Your task to perform on an android device: change notification settings in the gmail app Image 0: 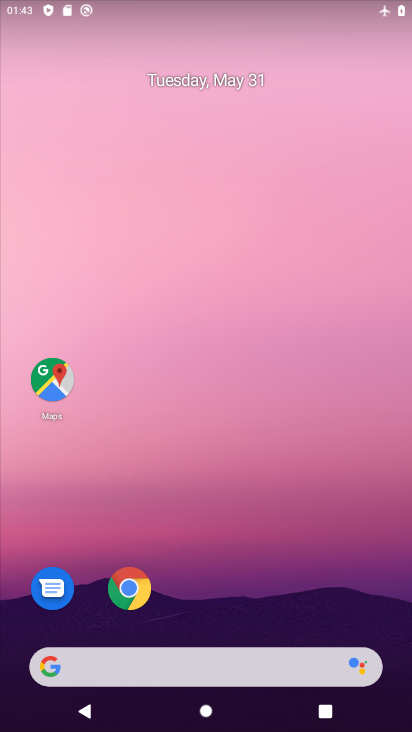
Step 0: drag from (276, 603) to (314, 213)
Your task to perform on an android device: change notification settings in the gmail app Image 1: 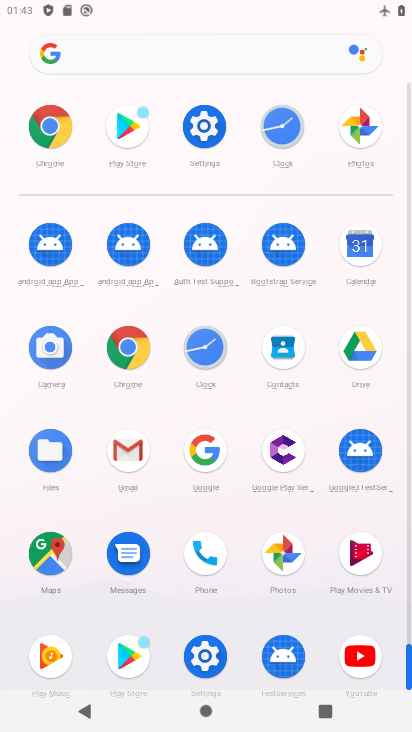
Step 1: click (130, 450)
Your task to perform on an android device: change notification settings in the gmail app Image 2: 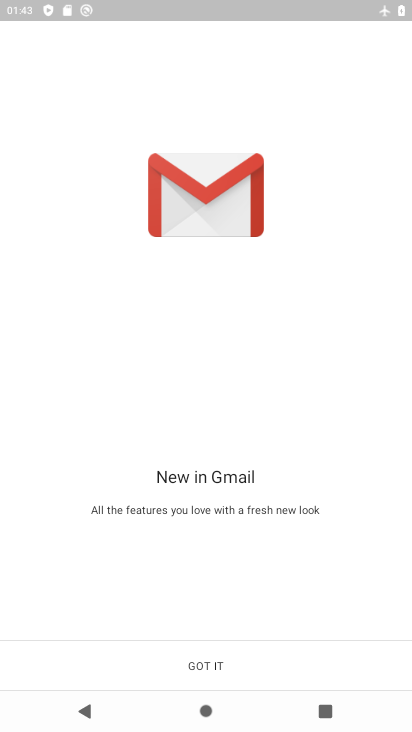
Step 2: click (228, 663)
Your task to perform on an android device: change notification settings in the gmail app Image 3: 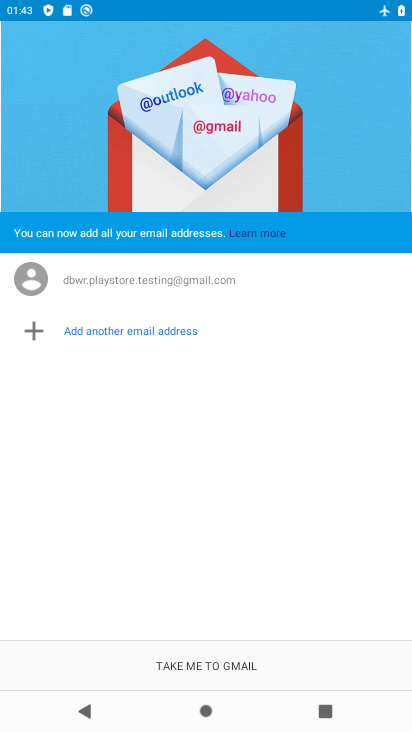
Step 3: click (235, 657)
Your task to perform on an android device: change notification settings in the gmail app Image 4: 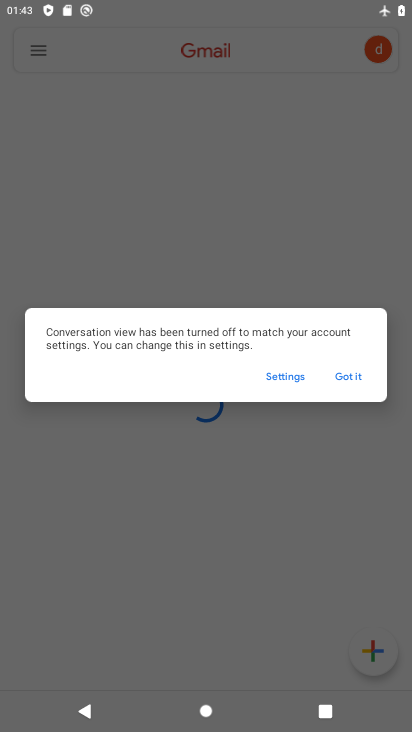
Step 4: click (351, 380)
Your task to perform on an android device: change notification settings in the gmail app Image 5: 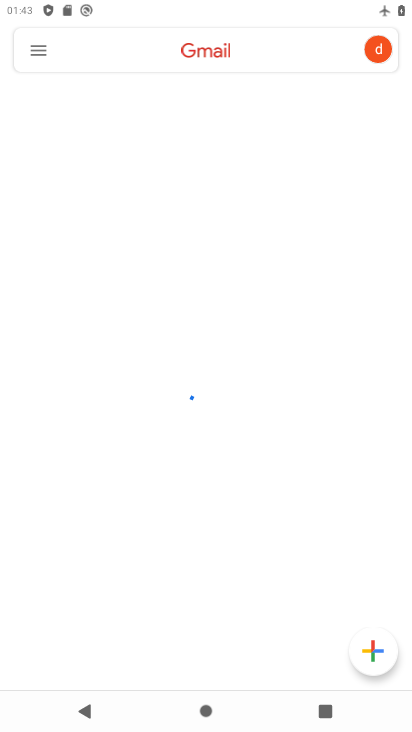
Step 5: click (33, 47)
Your task to perform on an android device: change notification settings in the gmail app Image 6: 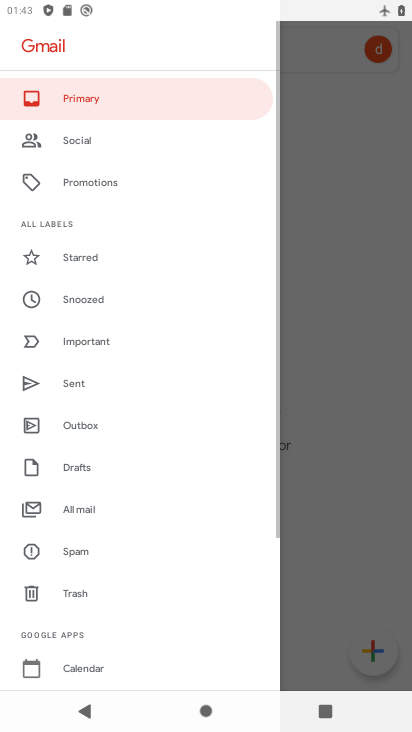
Step 6: drag from (169, 485) to (208, 220)
Your task to perform on an android device: change notification settings in the gmail app Image 7: 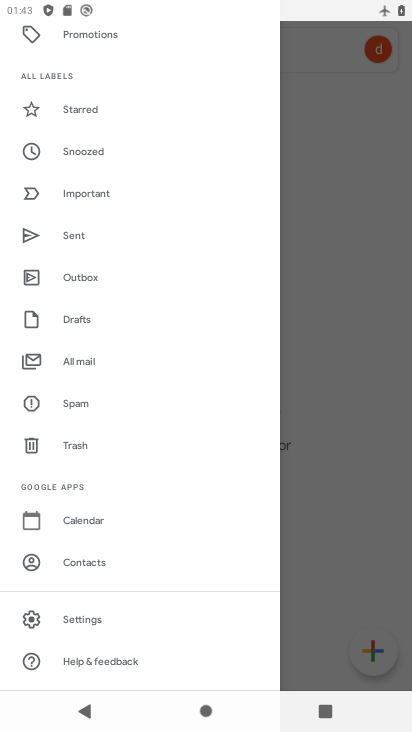
Step 7: click (127, 616)
Your task to perform on an android device: change notification settings in the gmail app Image 8: 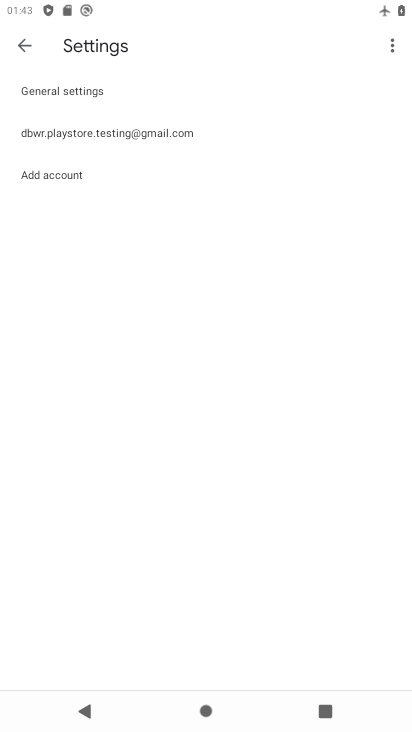
Step 8: click (167, 140)
Your task to perform on an android device: change notification settings in the gmail app Image 9: 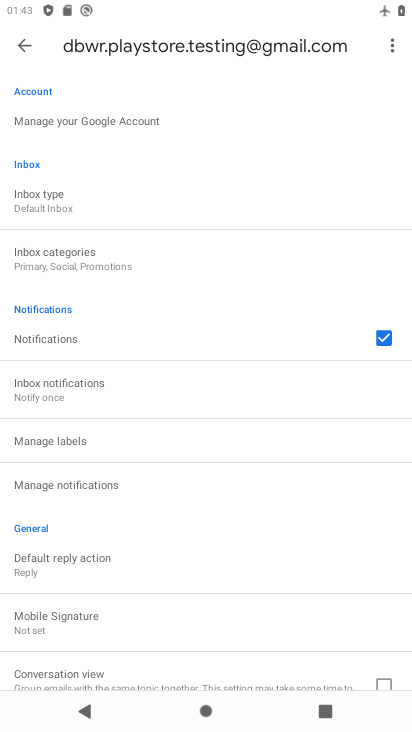
Step 9: click (124, 487)
Your task to perform on an android device: change notification settings in the gmail app Image 10: 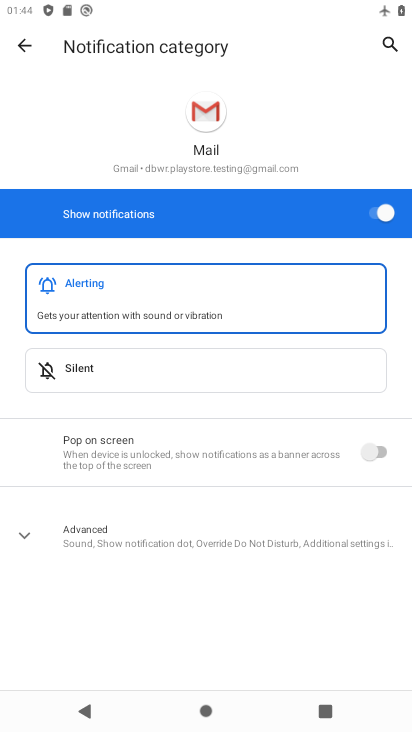
Step 10: click (380, 210)
Your task to perform on an android device: change notification settings in the gmail app Image 11: 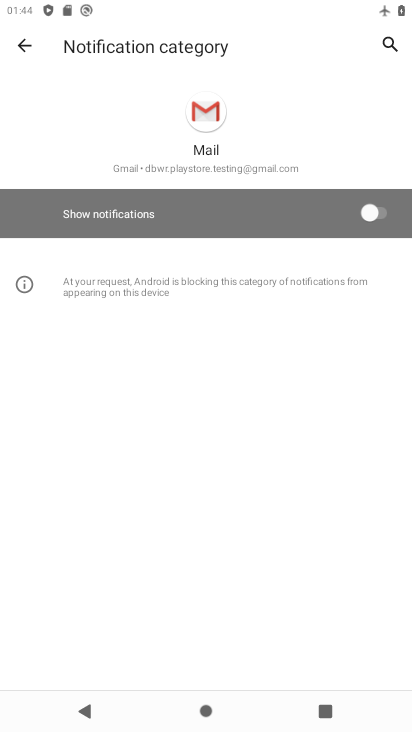
Step 11: task complete